Your task to perform on an android device: Go to Maps Image 0: 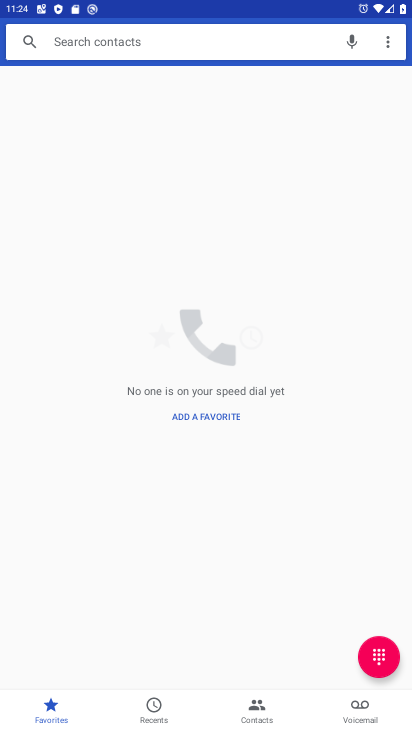
Step 0: press home button
Your task to perform on an android device: Go to Maps Image 1: 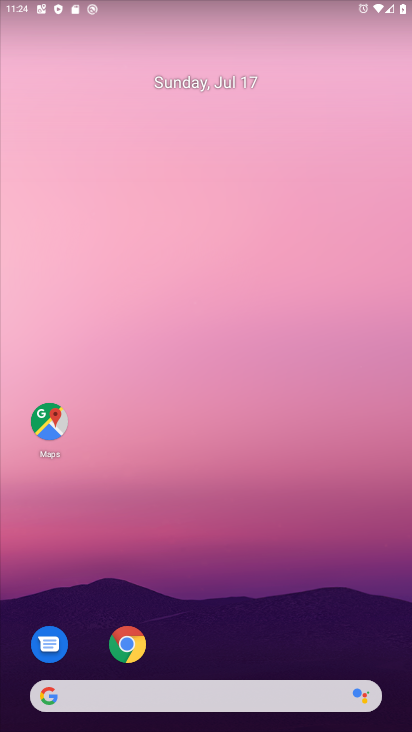
Step 1: drag from (311, 596) to (291, 101)
Your task to perform on an android device: Go to Maps Image 2: 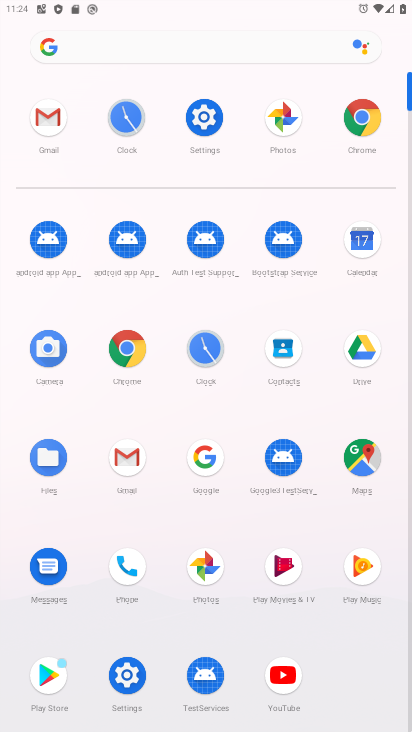
Step 2: click (362, 458)
Your task to perform on an android device: Go to Maps Image 3: 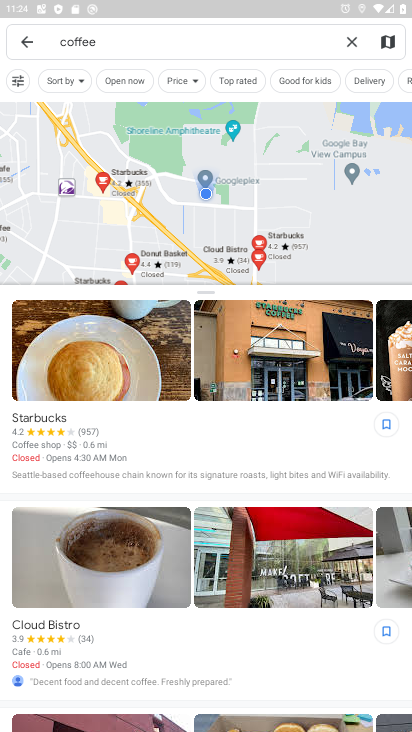
Step 3: task complete